Your task to perform on an android device: Open my contact list Image 0: 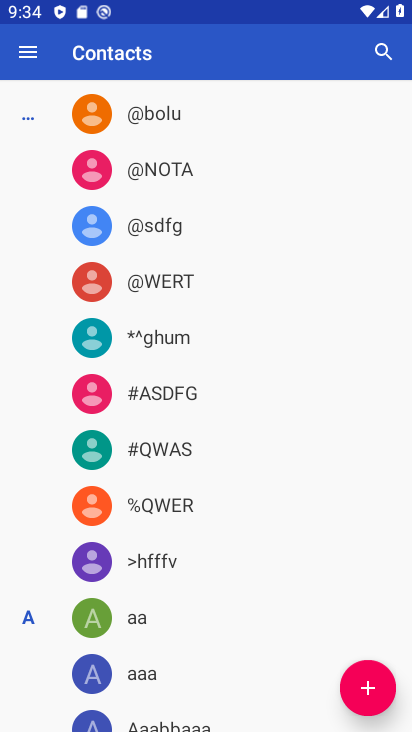
Step 0: task complete